Your task to perform on an android device: turn on the 12-hour format for clock Image 0: 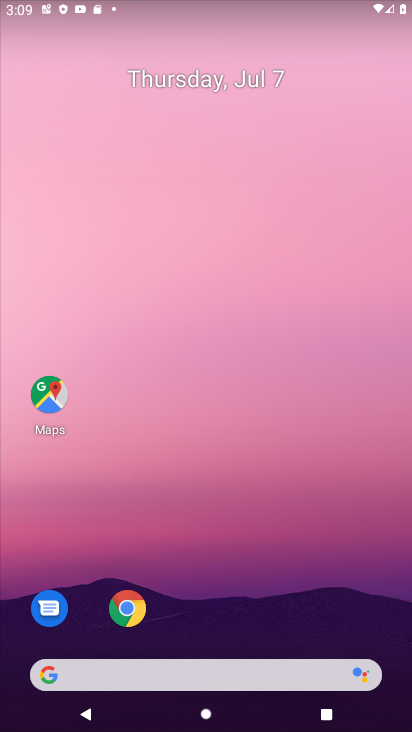
Step 0: drag from (397, 628) to (355, 151)
Your task to perform on an android device: turn on the 12-hour format for clock Image 1: 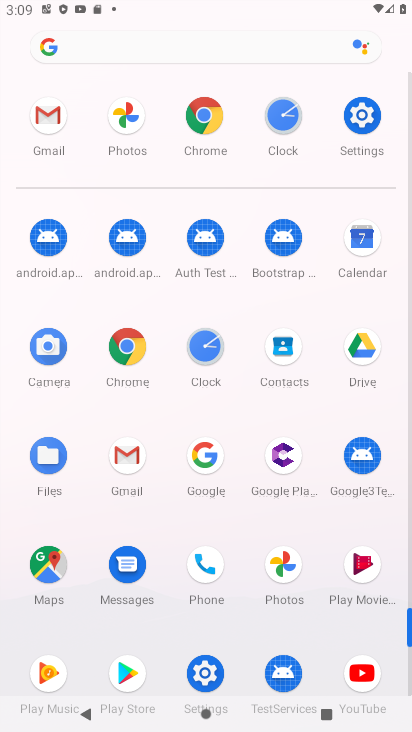
Step 1: click (204, 346)
Your task to perform on an android device: turn on the 12-hour format for clock Image 2: 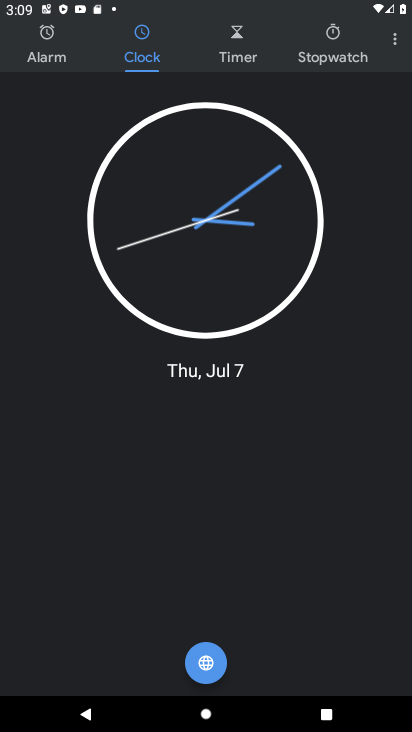
Step 2: click (394, 45)
Your task to perform on an android device: turn on the 12-hour format for clock Image 3: 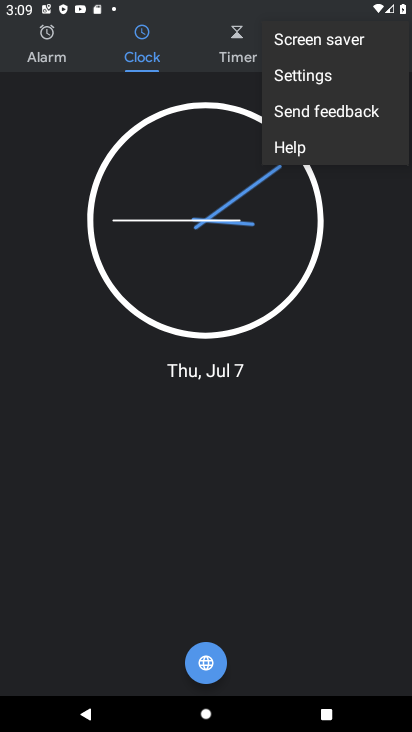
Step 3: click (302, 76)
Your task to perform on an android device: turn on the 12-hour format for clock Image 4: 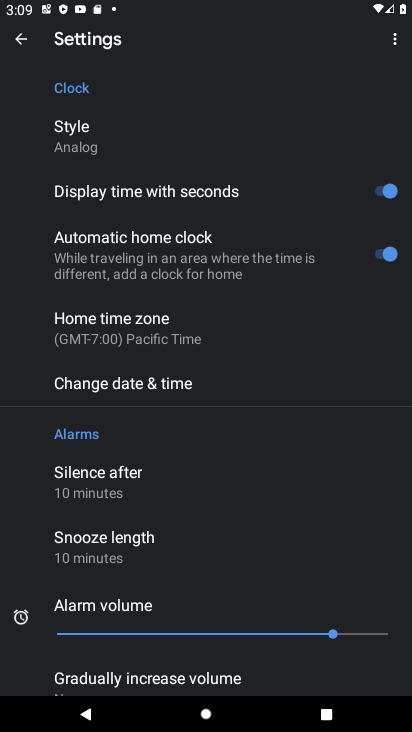
Step 4: click (142, 373)
Your task to perform on an android device: turn on the 12-hour format for clock Image 5: 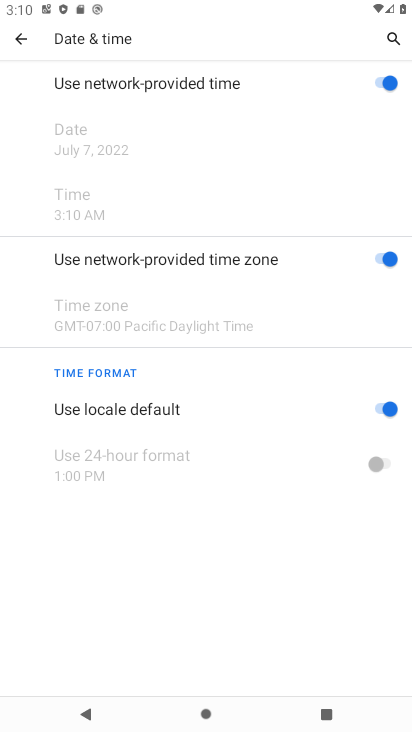
Step 5: task complete